Your task to perform on an android device: Is it going to rain this weekend? Image 0: 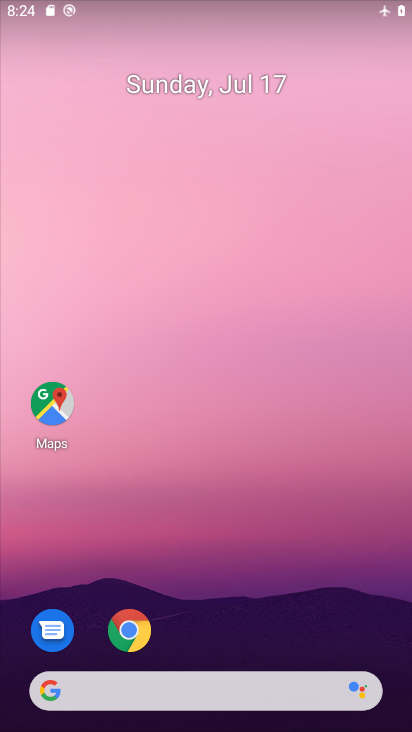
Step 0: drag from (192, 92) to (222, 13)
Your task to perform on an android device: Is it going to rain this weekend? Image 1: 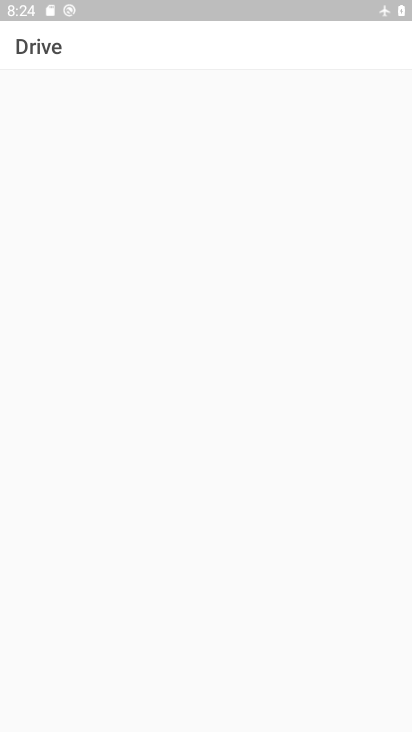
Step 1: press home button
Your task to perform on an android device: Is it going to rain this weekend? Image 2: 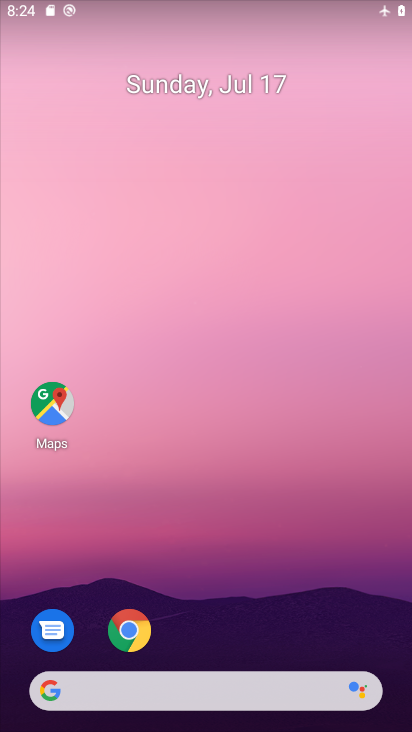
Step 2: click (179, 692)
Your task to perform on an android device: Is it going to rain this weekend? Image 3: 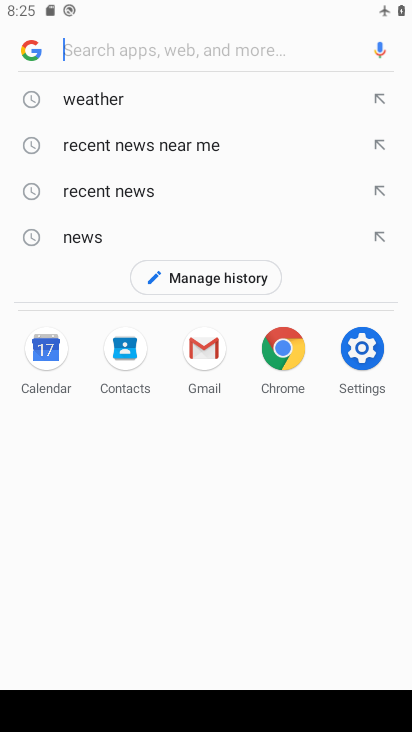
Step 3: click (111, 94)
Your task to perform on an android device: Is it going to rain this weekend? Image 4: 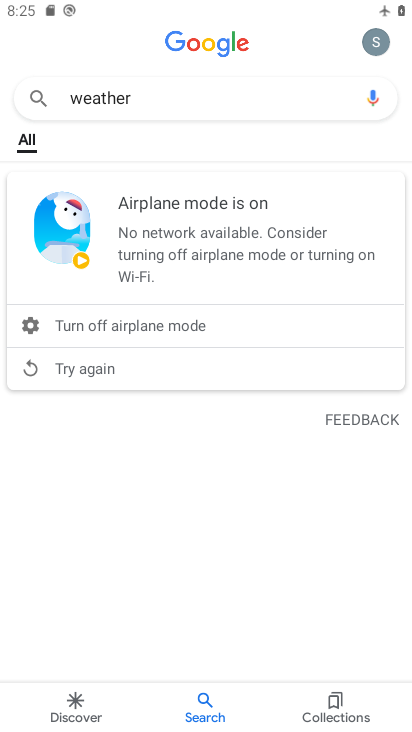
Step 4: task complete